Your task to perform on an android device: turn on notifications settings in the gmail app Image 0: 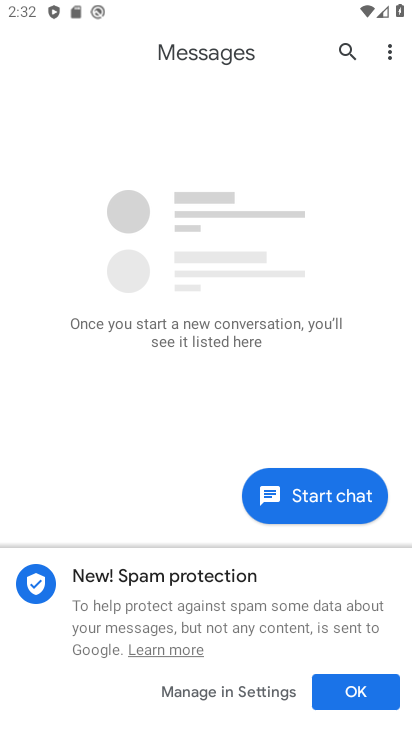
Step 0: click (410, 341)
Your task to perform on an android device: turn on notifications settings in the gmail app Image 1: 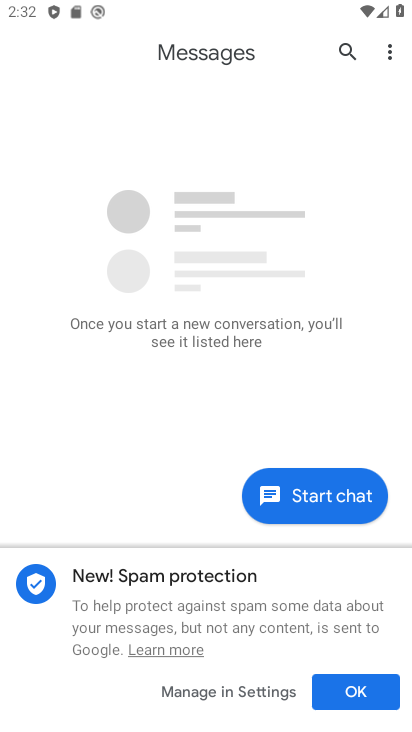
Step 1: drag from (276, 557) to (235, 294)
Your task to perform on an android device: turn on notifications settings in the gmail app Image 2: 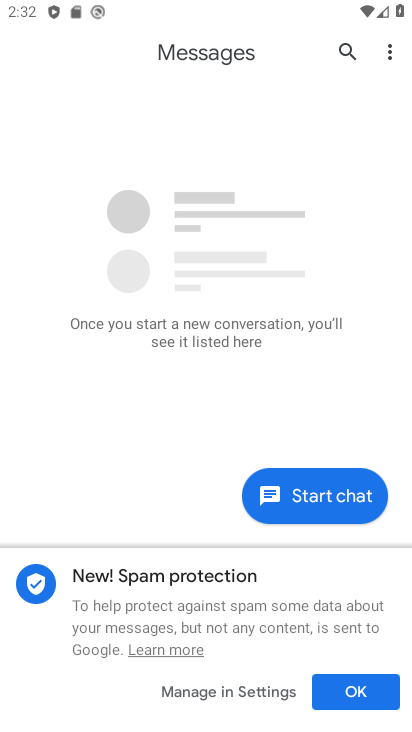
Step 2: drag from (208, 511) to (141, 3)
Your task to perform on an android device: turn on notifications settings in the gmail app Image 3: 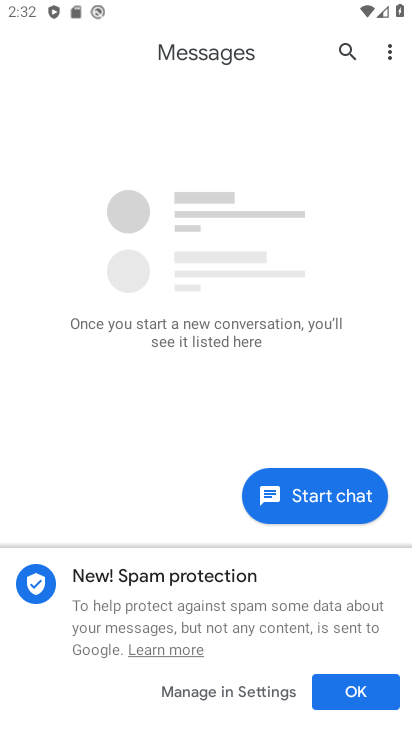
Step 3: press home button
Your task to perform on an android device: turn on notifications settings in the gmail app Image 4: 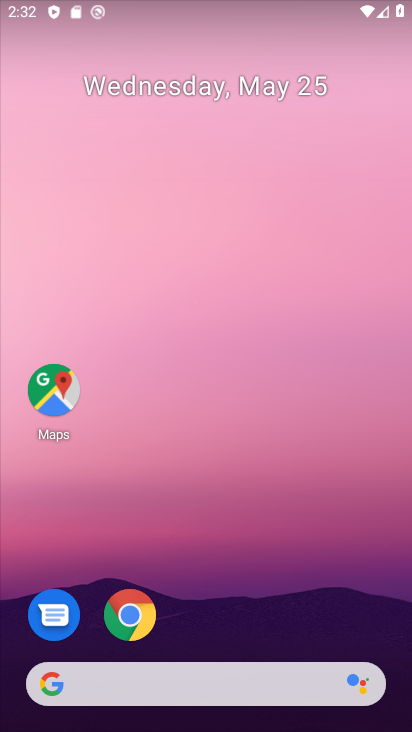
Step 4: drag from (227, 646) to (246, 6)
Your task to perform on an android device: turn on notifications settings in the gmail app Image 5: 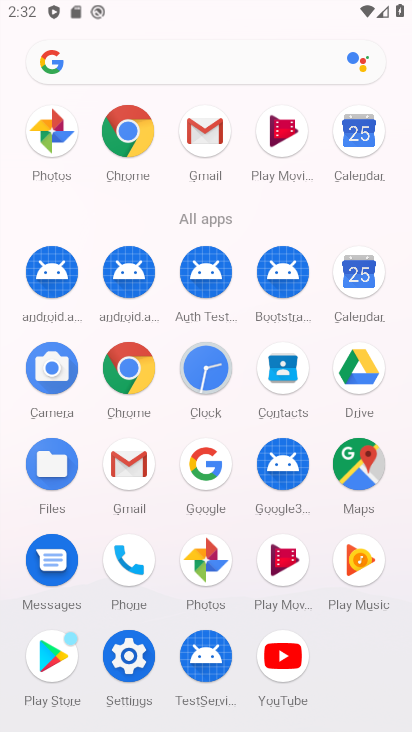
Step 5: click (212, 135)
Your task to perform on an android device: turn on notifications settings in the gmail app Image 6: 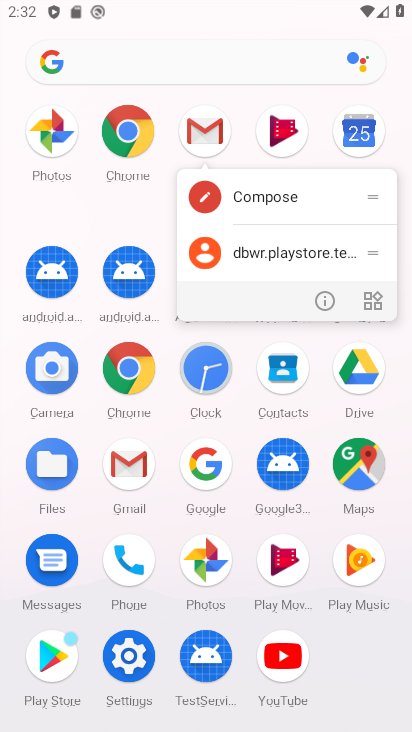
Step 6: click (317, 300)
Your task to perform on an android device: turn on notifications settings in the gmail app Image 7: 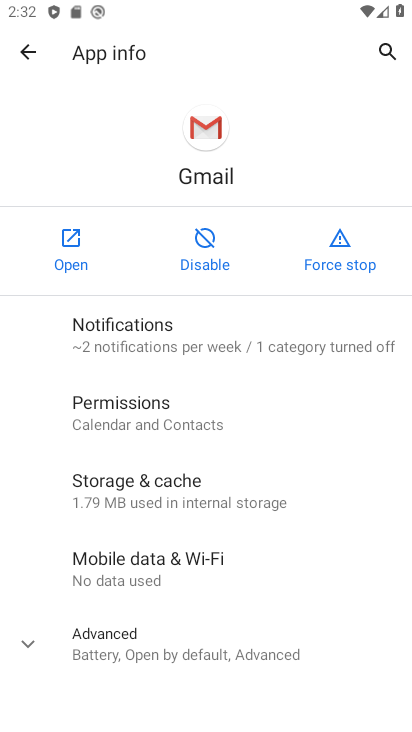
Step 7: click (130, 318)
Your task to perform on an android device: turn on notifications settings in the gmail app Image 8: 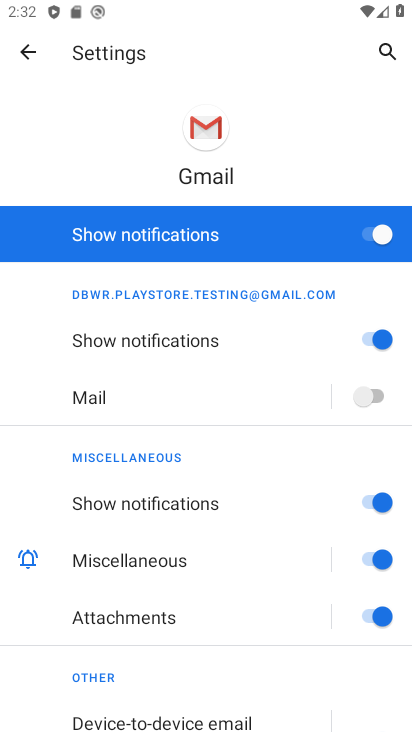
Step 8: click (362, 400)
Your task to perform on an android device: turn on notifications settings in the gmail app Image 9: 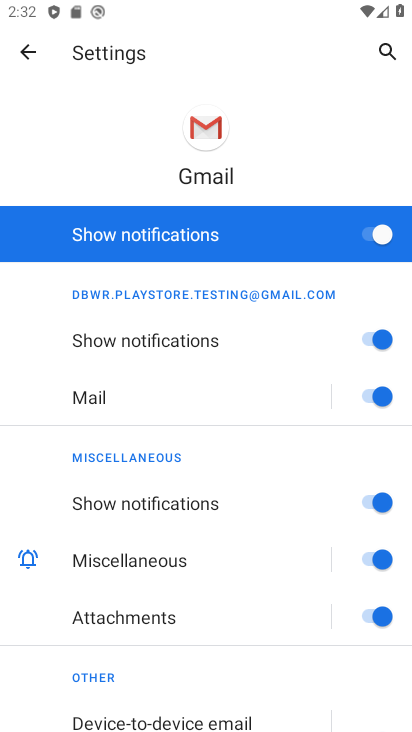
Step 9: task complete